Your task to perform on an android device: Go to CNN.com Image 0: 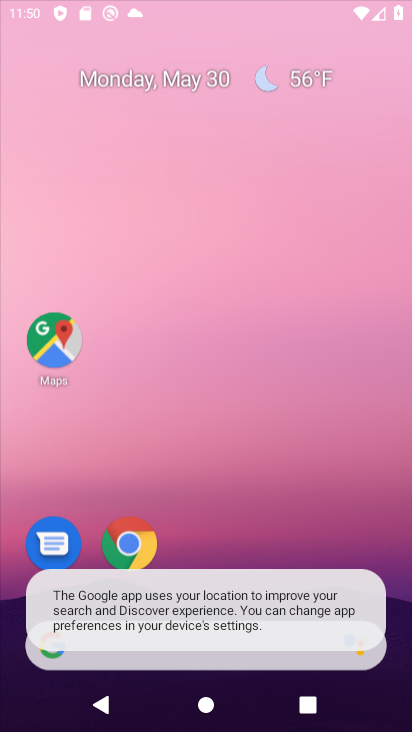
Step 0: click (152, 41)
Your task to perform on an android device: Go to CNN.com Image 1: 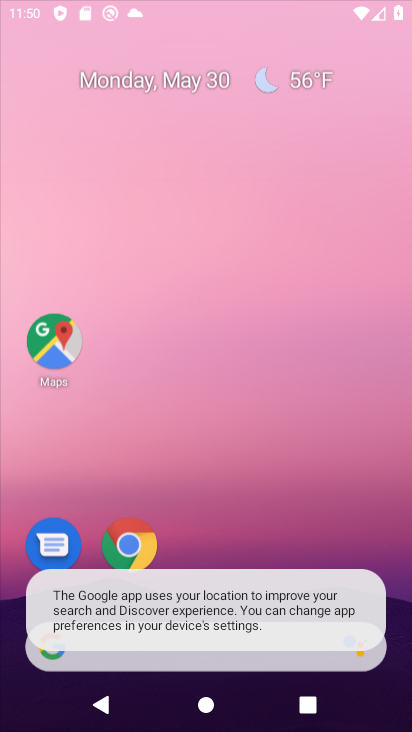
Step 1: drag from (268, 684) to (212, 77)
Your task to perform on an android device: Go to CNN.com Image 2: 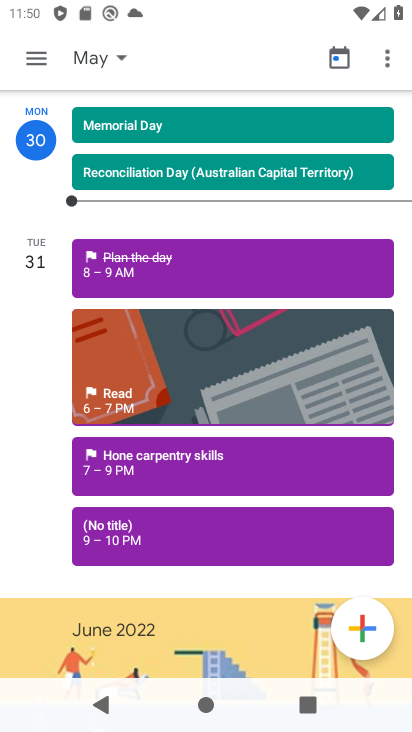
Step 2: press back button
Your task to perform on an android device: Go to CNN.com Image 3: 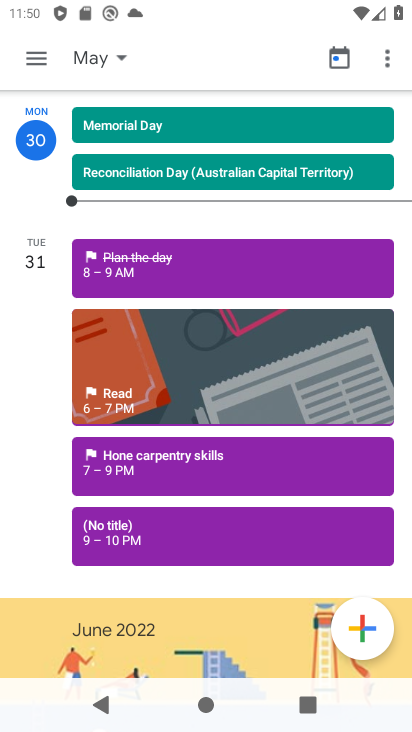
Step 3: press back button
Your task to perform on an android device: Go to CNN.com Image 4: 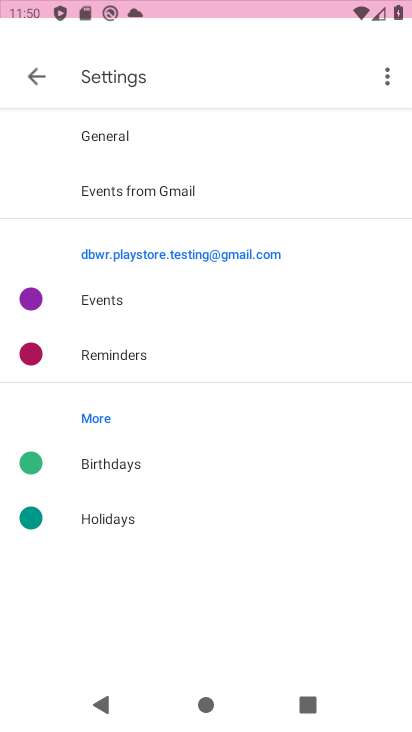
Step 4: press back button
Your task to perform on an android device: Go to CNN.com Image 5: 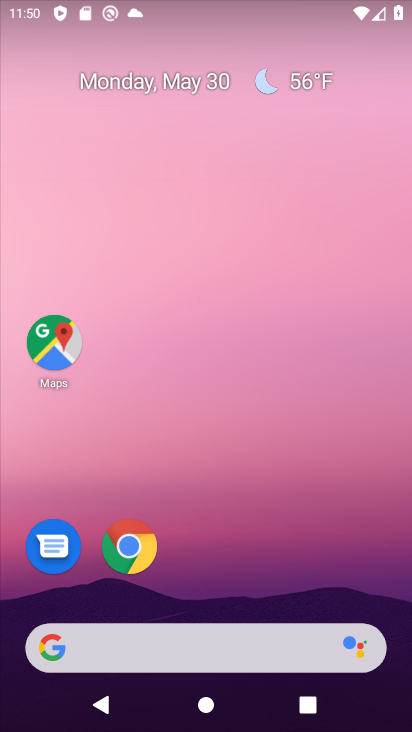
Step 5: drag from (249, 657) to (176, 89)
Your task to perform on an android device: Go to CNN.com Image 6: 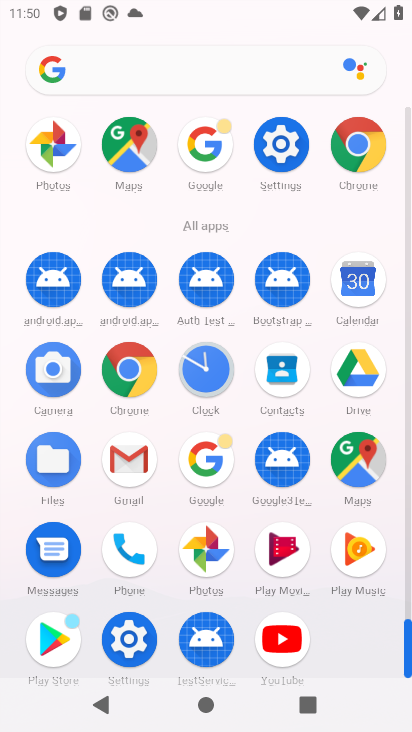
Step 6: click (352, 151)
Your task to perform on an android device: Go to CNN.com Image 7: 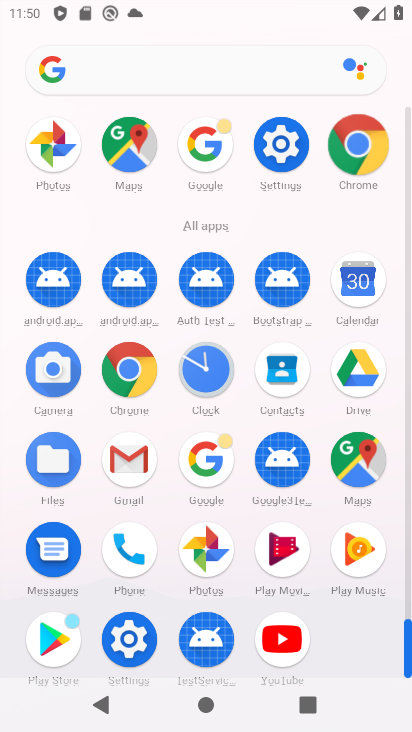
Step 7: click (349, 150)
Your task to perform on an android device: Go to CNN.com Image 8: 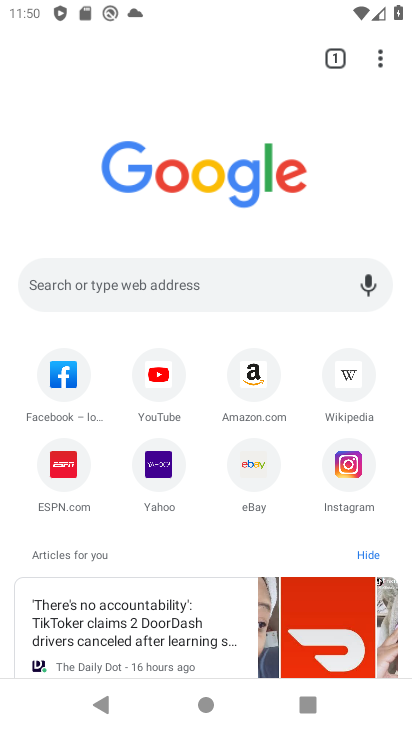
Step 8: click (46, 276)
Your task to perform on an android device: Go to CNN.com Image 9: 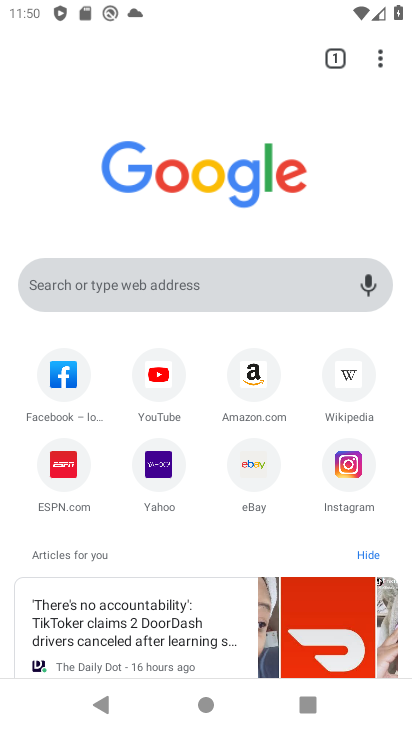
Step 9: click (46, 276)
Your task to perform on an android device: Go to CNN.com Image 10: 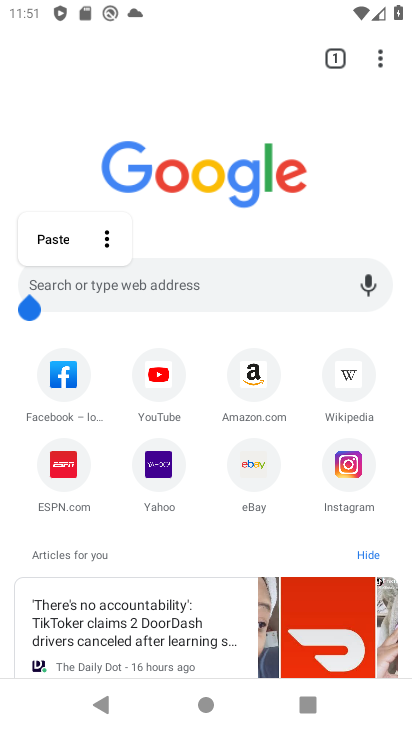
Step 10: click (38, 284)
Your task to perform on an android device: Go to CNN.com Image 11: 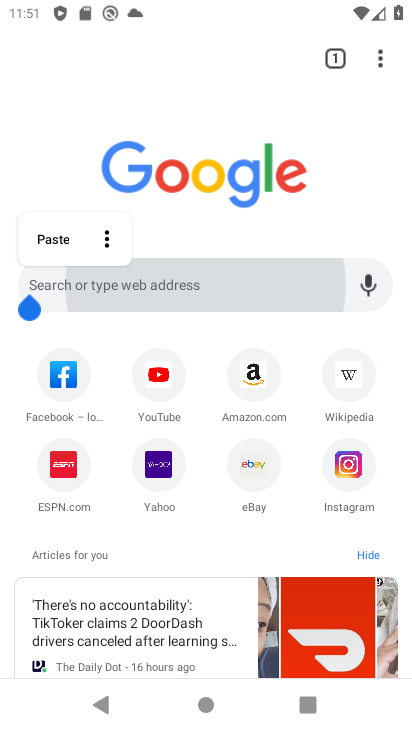
Step 11: click (38, 284)
Your task to perform on an android device: Go to CNN.com Image 12: 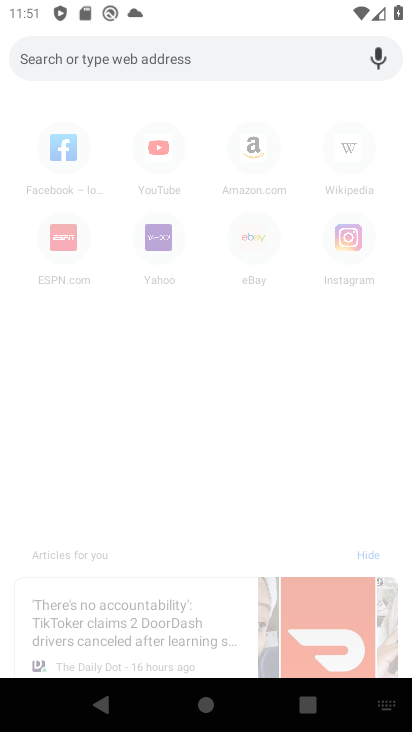
Step 12: click (38, 284)
Your task to perform on an android device: Go to CNN.com Image 13: 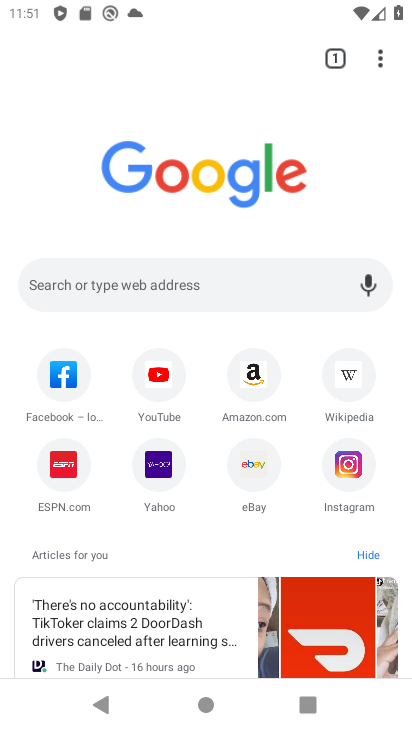
Step 13: click (37, 279)
Your task to perform on an android device: Go to CNN.com Image 14: 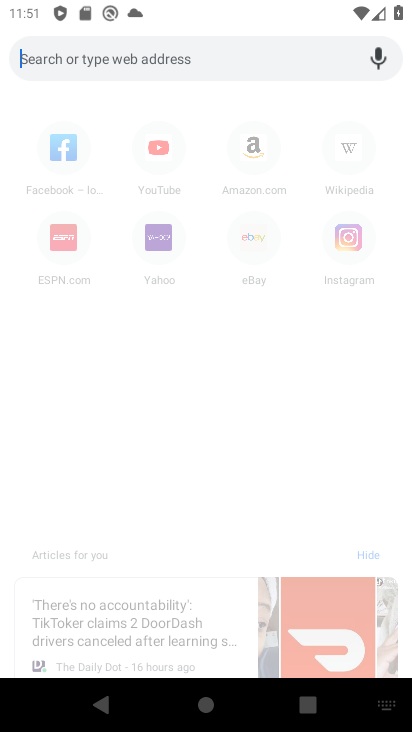
Step 14: type "cnn.com"
Your task to perform on an android device: Go to CNN.com Image 15: 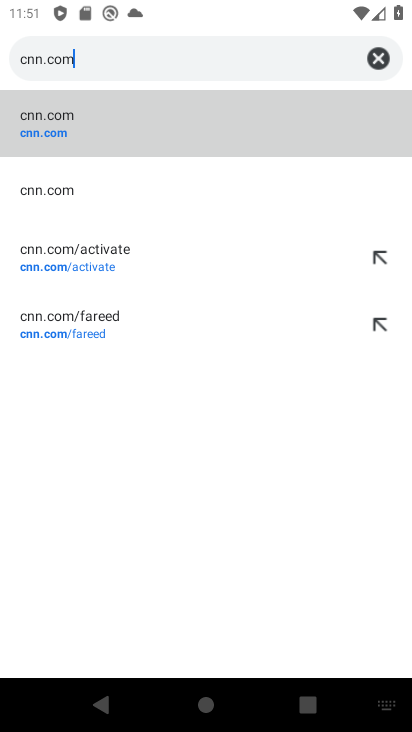
Step 15: click (32, 130)
Your task to perform on an android device: Go to CNN.com Image 16: 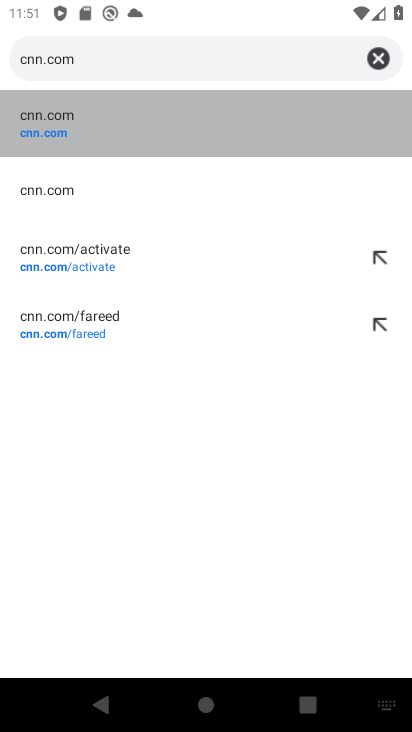
Step 16: click (41, 125)
Your task to perform on an android device: Go to CNN.com Image 17: 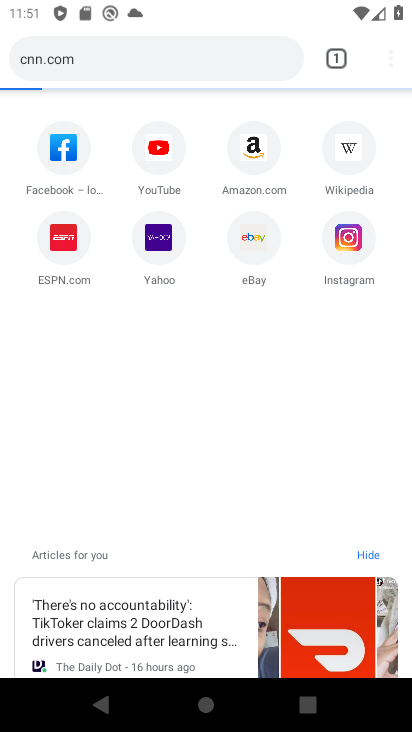
Step 17: click (42, 124)
Your task to perform on an android device: Go to CNN.com Image 18: 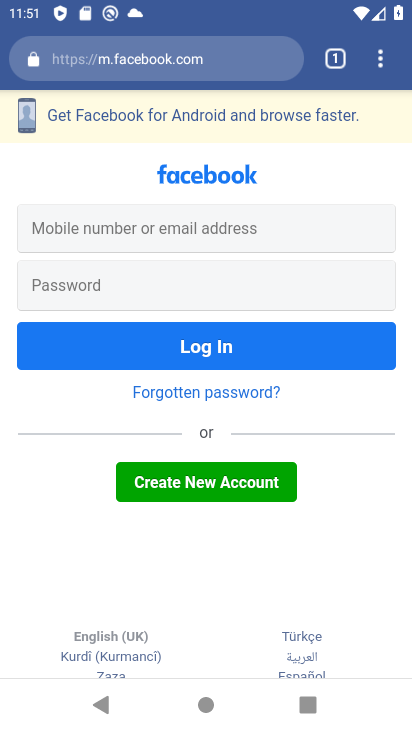
Step 18: task complete